Your task to perform on an android device: Find coffee shops on Maps Image 0: 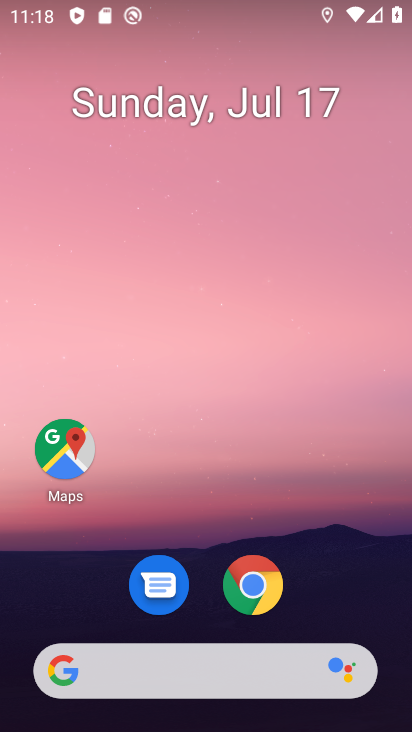
Step 0: click (58, 456)
Your task to perform on an android device: Find coffee shops on Maps Image 1: 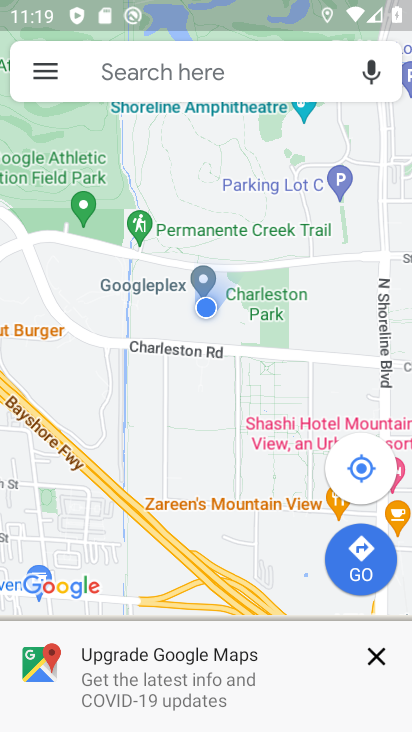
Step 1: click (124, 59)
Your task to perform on an android device: Find coffee shops on Maps Image 2: 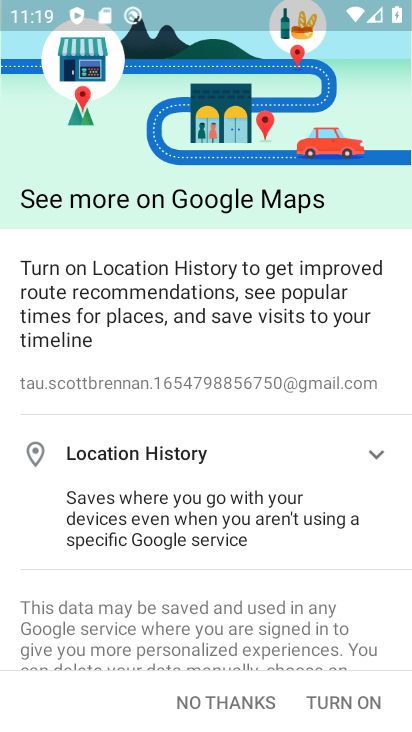
Step 2: click (364, 695)
Your task to perform on an android device: Find coffee shops on Maps Image 3: 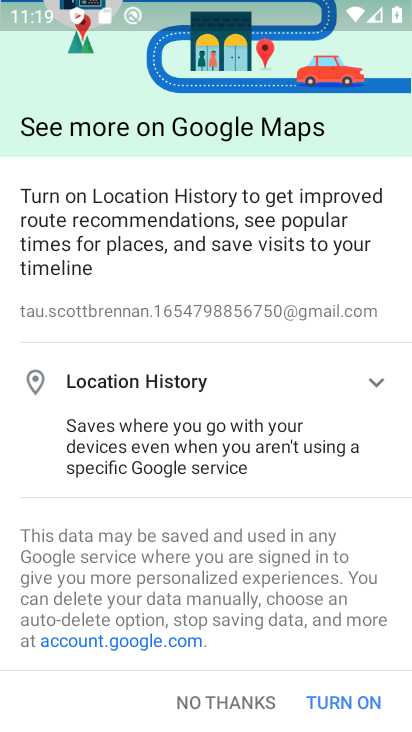
Step 3: click (364, 695)
Your task to perform on an android device: Find coffee shops on Maps Image 4: 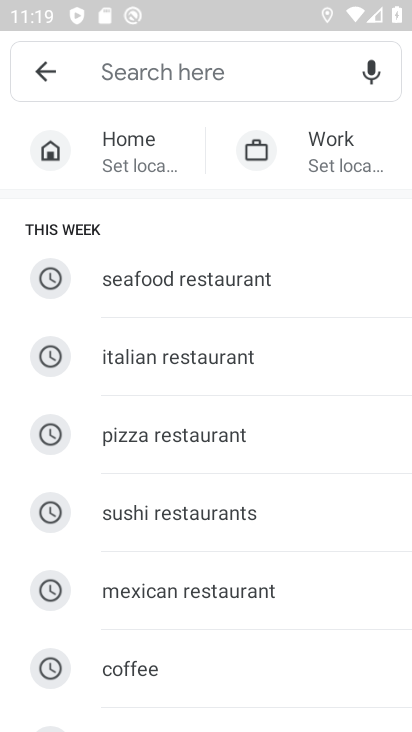
Step 4: click (230, 668)
Your task to perform on an android device: Find coffee shops on Maps Image 5: 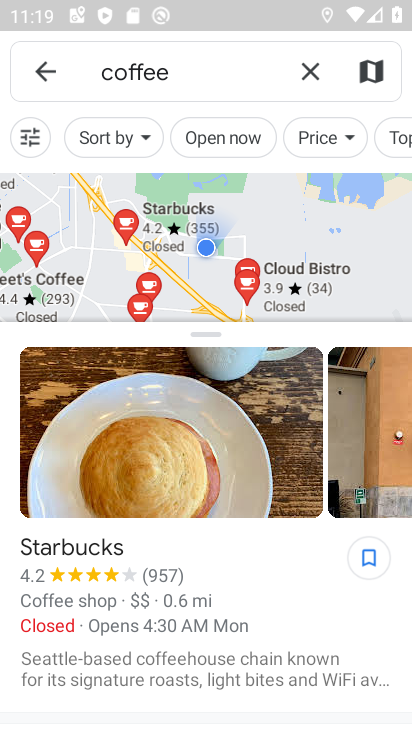
Step 5: task complete